Your task to perform on an android device: Open the calendar and show me this week's events? Image 0: 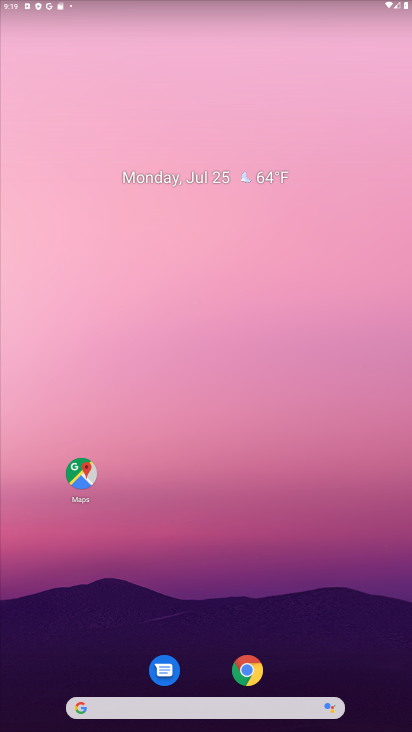
Step 0: drag from (368, 666) to (221, 103)
Your task to perform on an android device: Open the calendar and show me this week's events? Image 1: 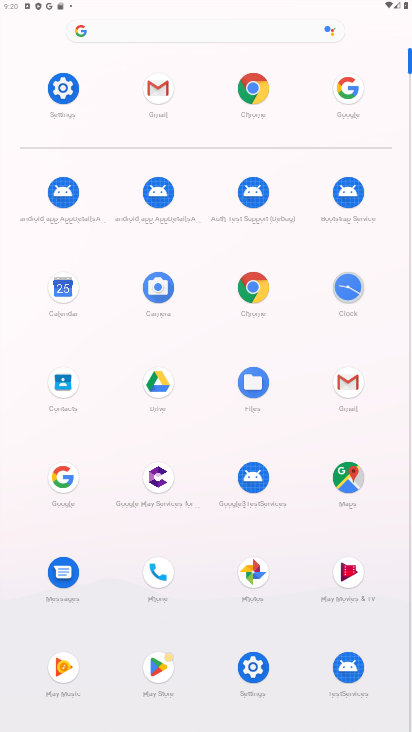
Step 1: click (46, 281)
Your task to perform on an android device: Open the calendar and show me this week's events? Image 2: 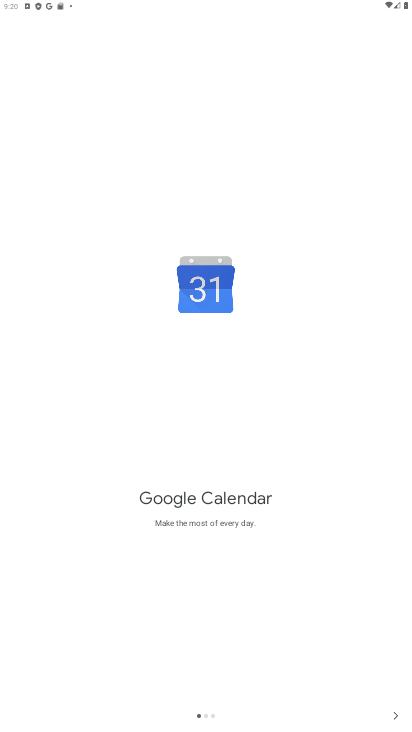
Step 2: click (395, 707)
Your task to perform on an android device: Open the calendar and show me this week's events? Image 3: 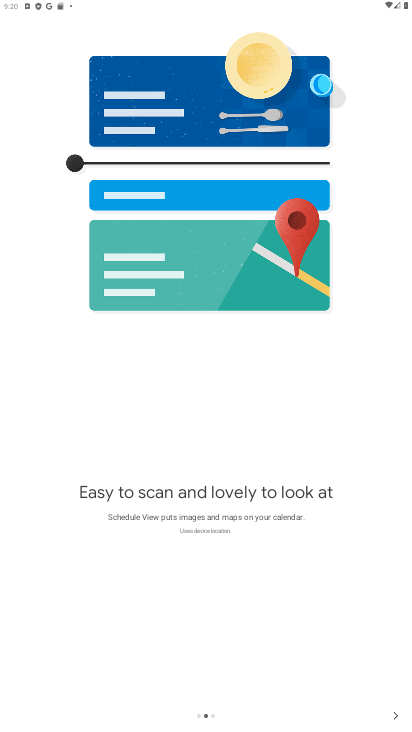
Step 3: click (395, 707)
Your task to perform on an android device: Open the calendar and show me this week's events? Image 4: 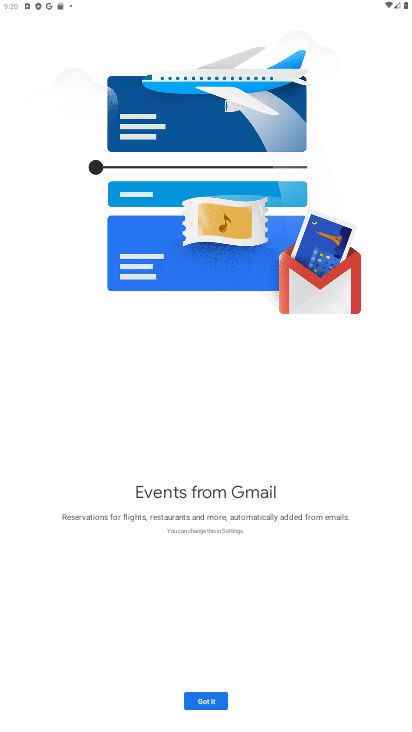
Step 4: click (202, 702)
Your task to perform on an android device: Open the calendar and show me this week's events? Image 5: 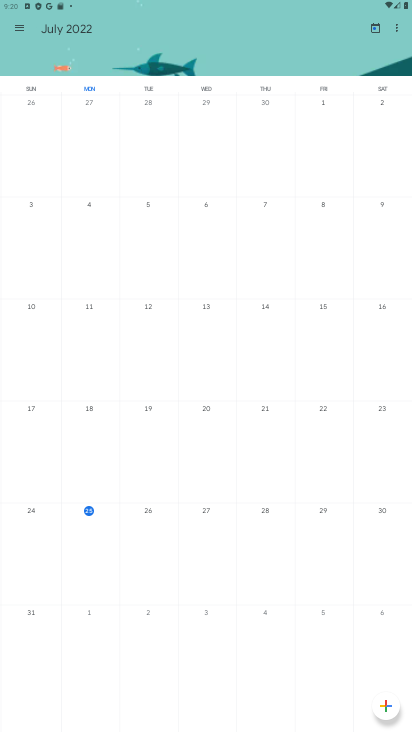
Step 5: task complete